Your task to perform on an android device: Go to wifi settings Image 0: 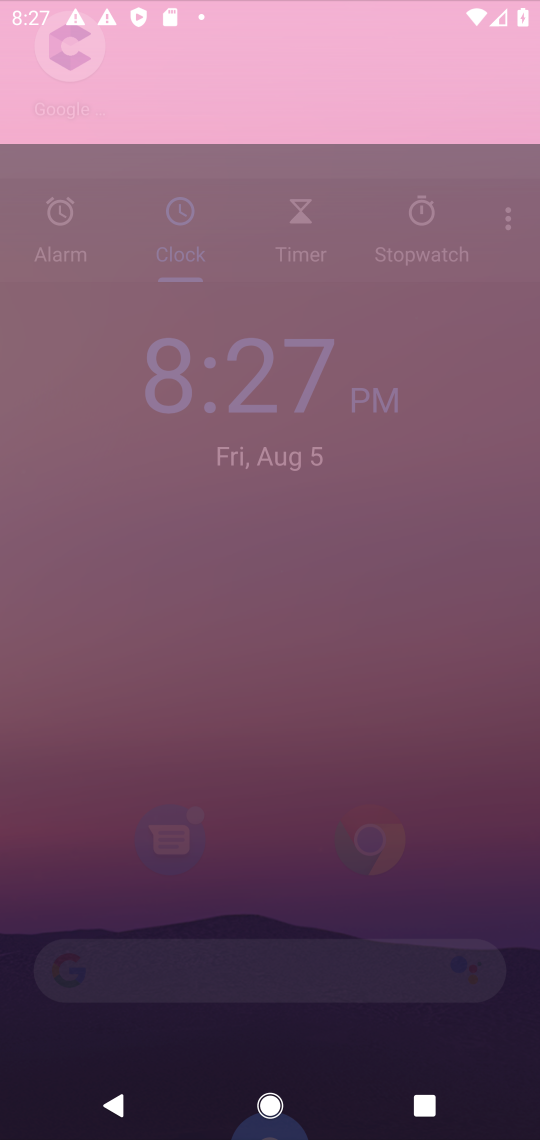
Step 0: press home button
Your task to perform on an android device: Go to wifi settings Image 1: 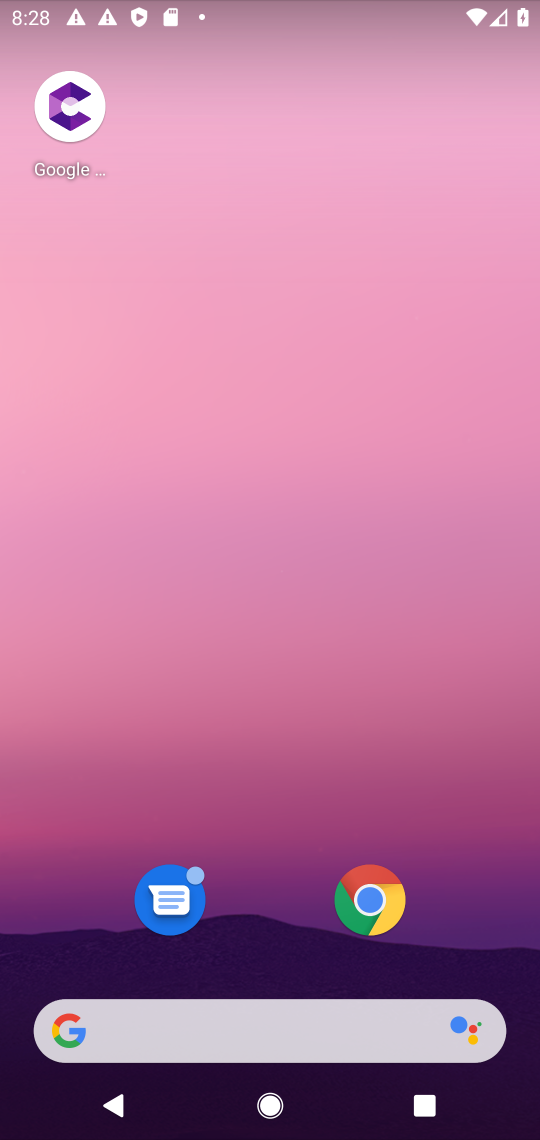
Step 1: drag from (250, 7) to (163, 1108)
Your task to perform on an android device: Go to wifi settings Image 2: 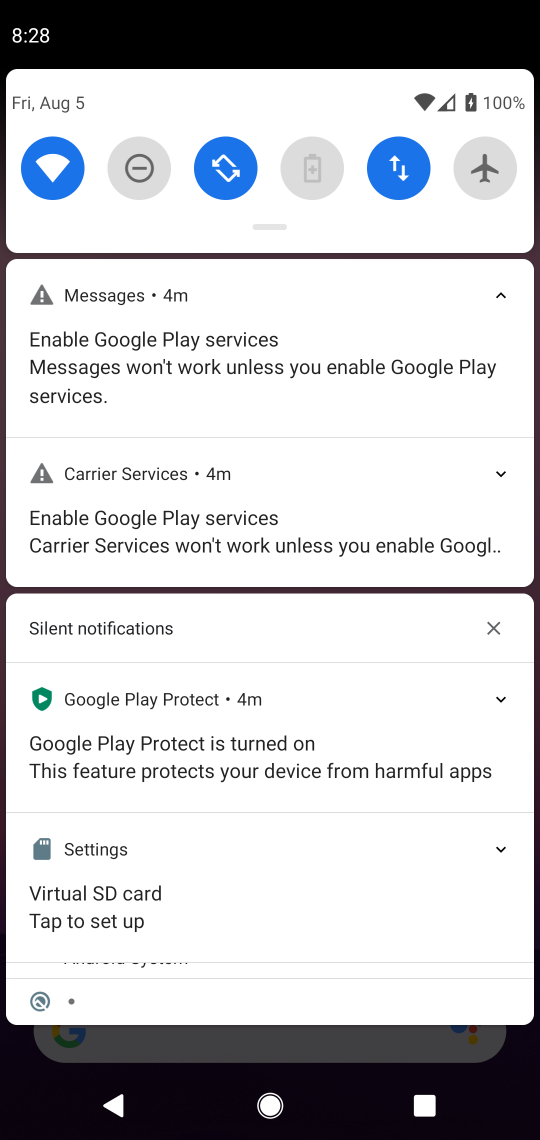
Step 2: click (40, 169)
Your task to perform on an android device: Go to wifi settings Image 3: 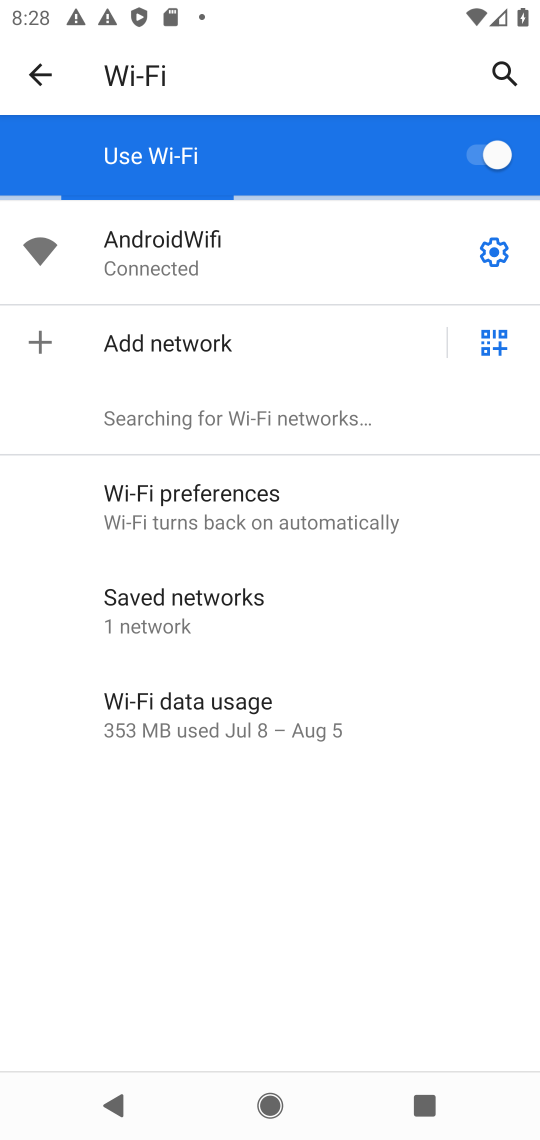
Step 3: task complete